Your task to perform on an android device: allow cookies in the chrome app Image 0: 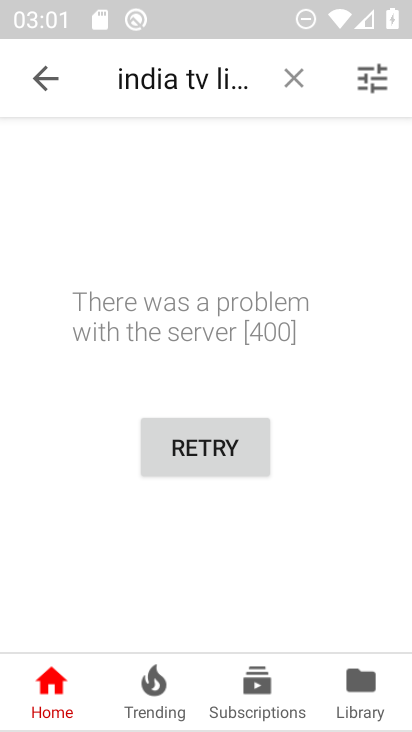
Step 0: press home button
Your task to perform on an android device: allow cookies in the chrome app Image 1: 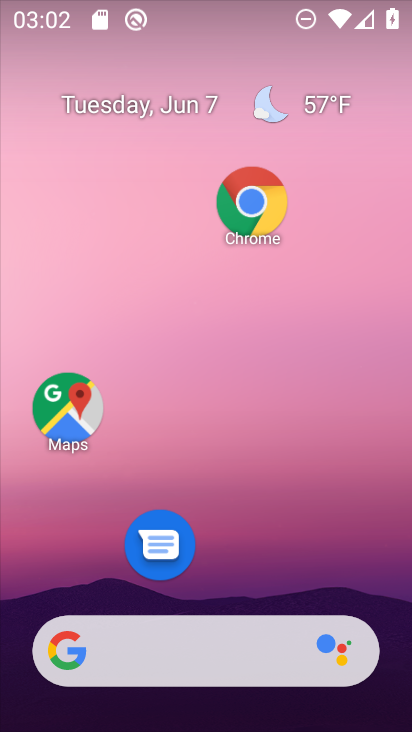
Step 1: click (245, 180)
Your task to perform on an android device: allow cookies in the chrome app Image 2: 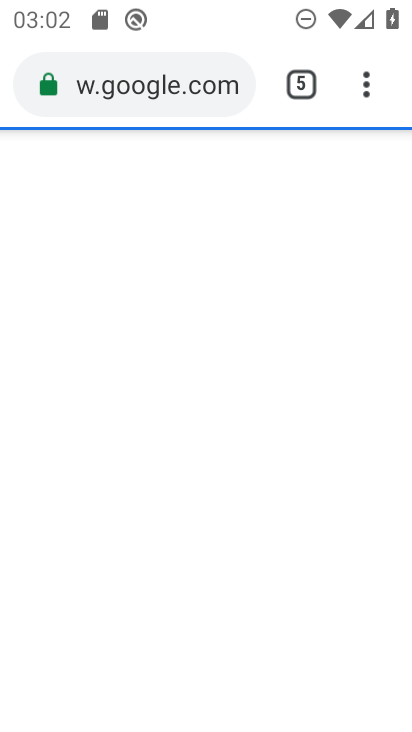
Step 2: click (369, 72)
Your task to perform on an android device: allow cookies in the chrome app Image 3: 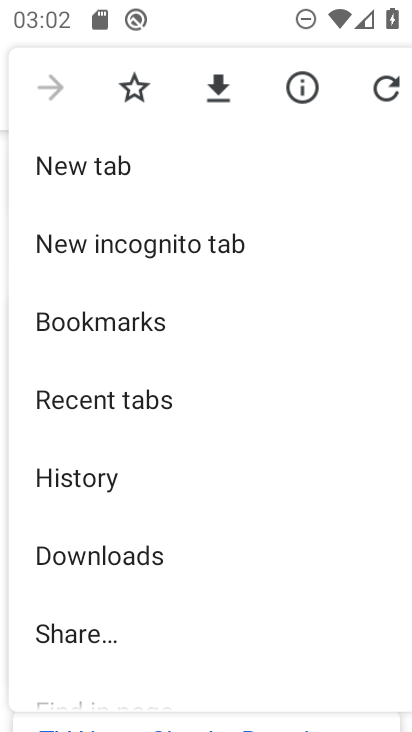
Step 3: drag from (180, 581) to (214, 292)
Your task to perform on an android device: allow cookies in the chrome app Image 4: 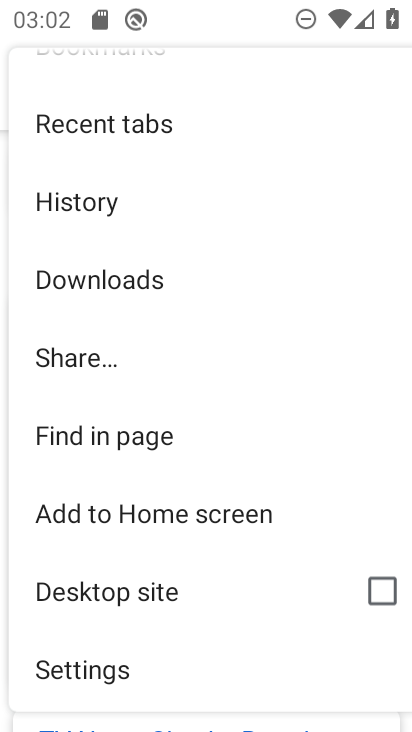
Step 4: drag from (151, 542) to (170, 242)
Your task to perform on an android device: allow cookies in the chrome app Image 5: 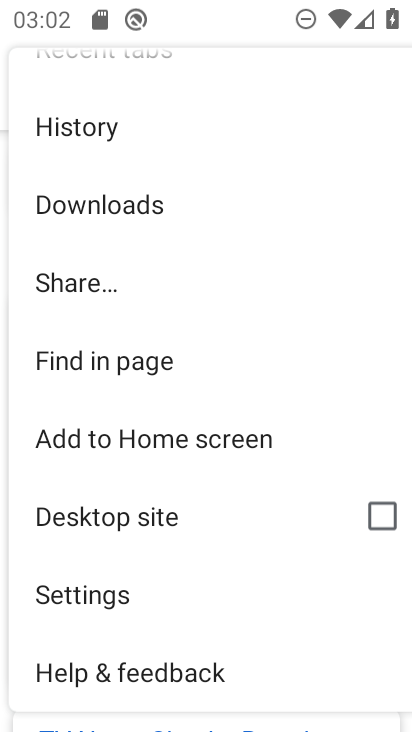
Step 5: click (96, 595)
Your task to perform on an android device: allow cookies in the chrome app Image 6: 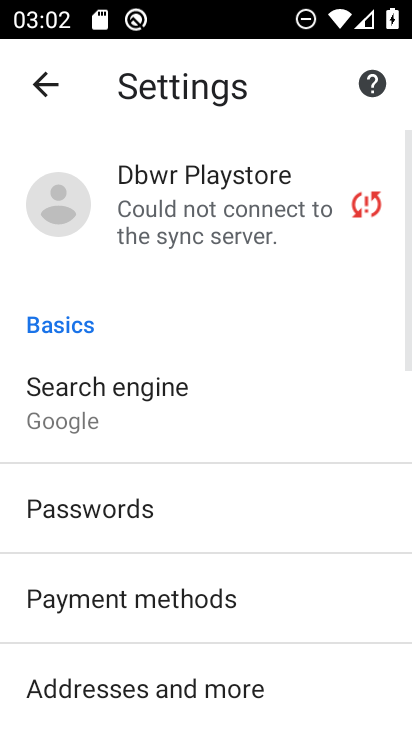
Step 6: drag from (167, 664) to (204, 234)
Your task to perform on an android device: allow cookies in the chrome app Image 7: 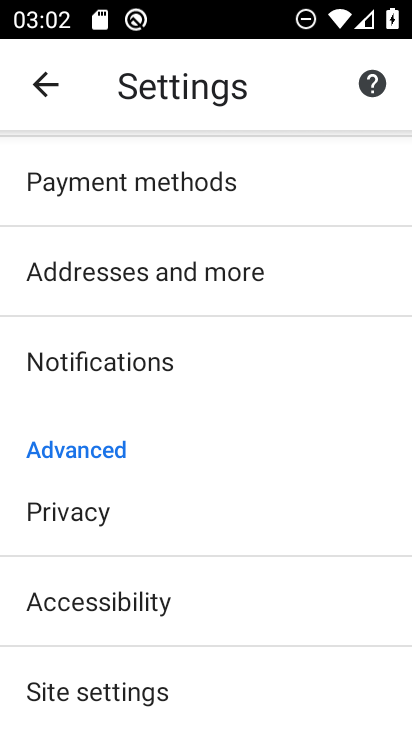
Step 7: drag from (113, 637) to (158, 444)
Your task to perform on an android device: allow cookies in the chrome app Image 8: 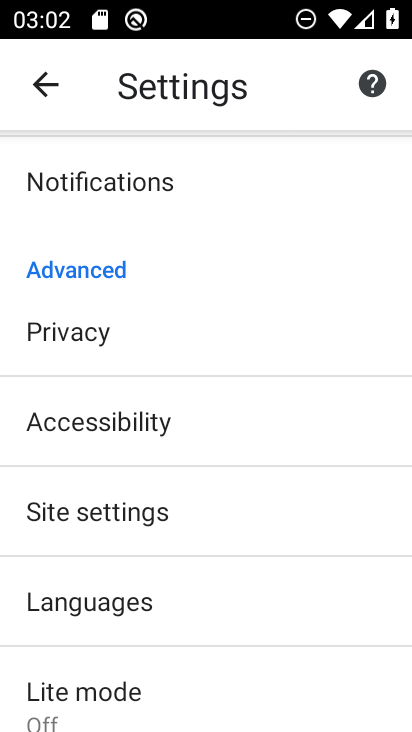
Step 8: click (126, 516)
Your task to perform on an android device: allow cookies in the chrome app Image 9: 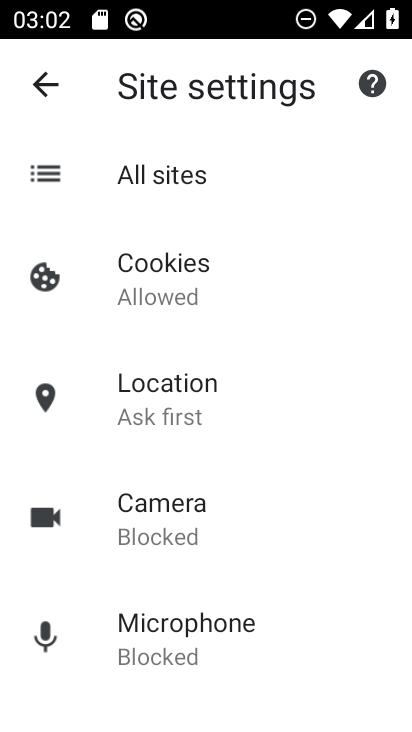
Step 9: click (164, 258)
Your task to perform on an android device: allow cookies in the chrome app Image 10: 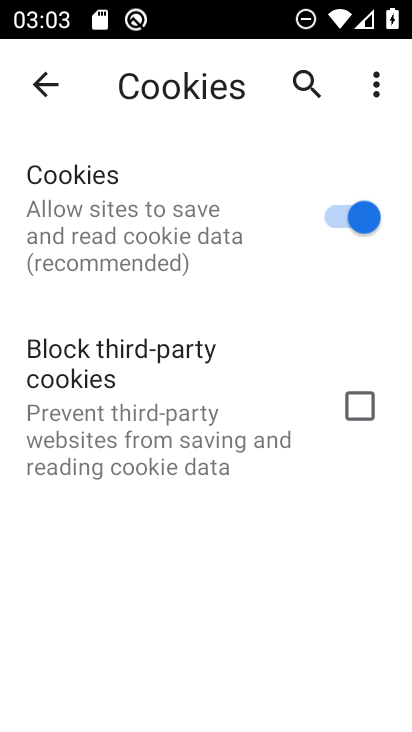
Step 10: task complete